Your task to perform on an android device: What's US dollar exchange rate against the Japanese Yen? Image 0: 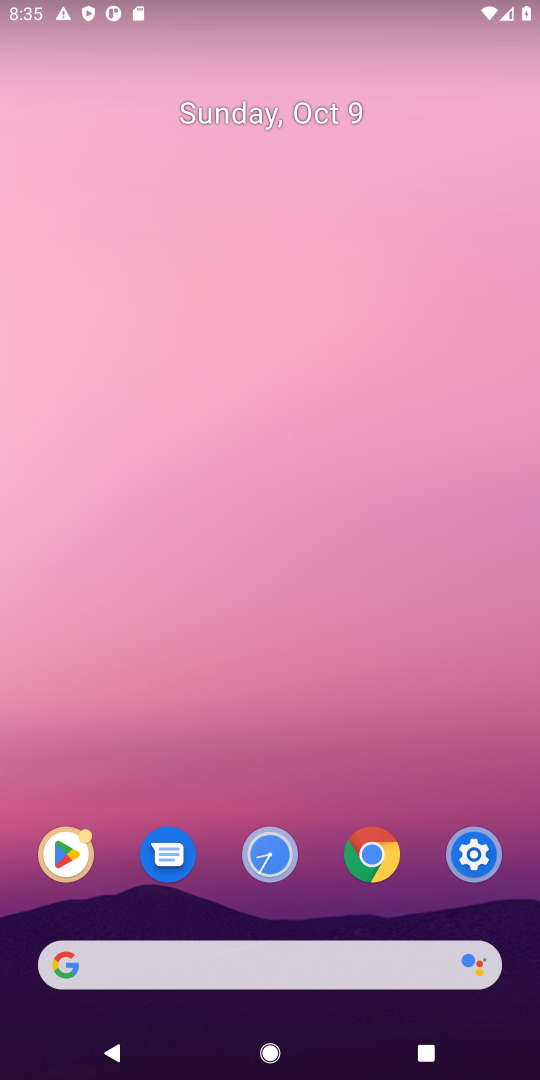
Step 0: drag from (296, 800) to (260, 310)
Your task to perform on an android device: What's US dollar exchange rate against the Japanese Yen? Image 1: 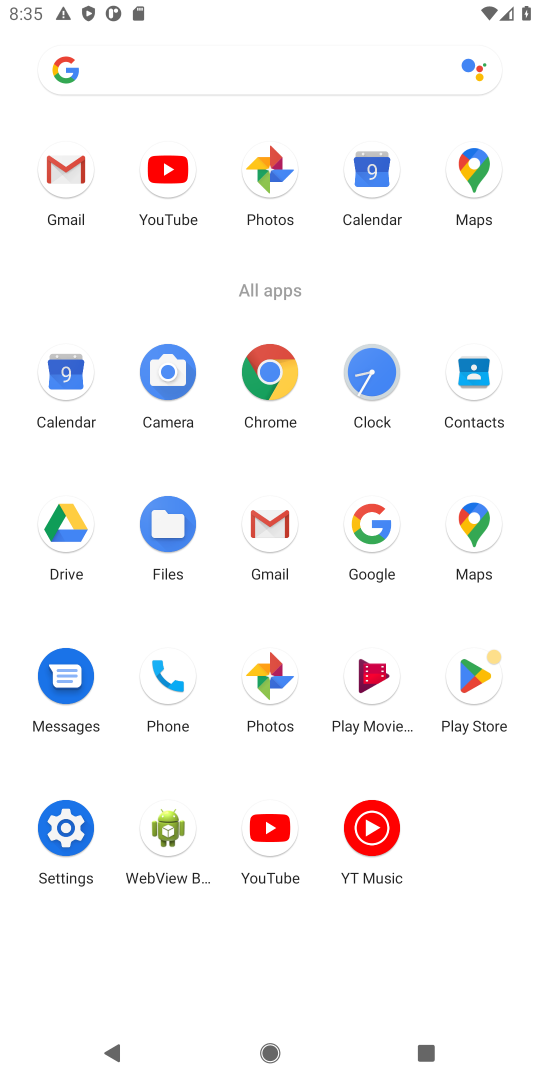
Step 1: click (373, 535)
Your task to perform on an android device: What's US dollar exchange rate against the Japanese Yen? Image 2: 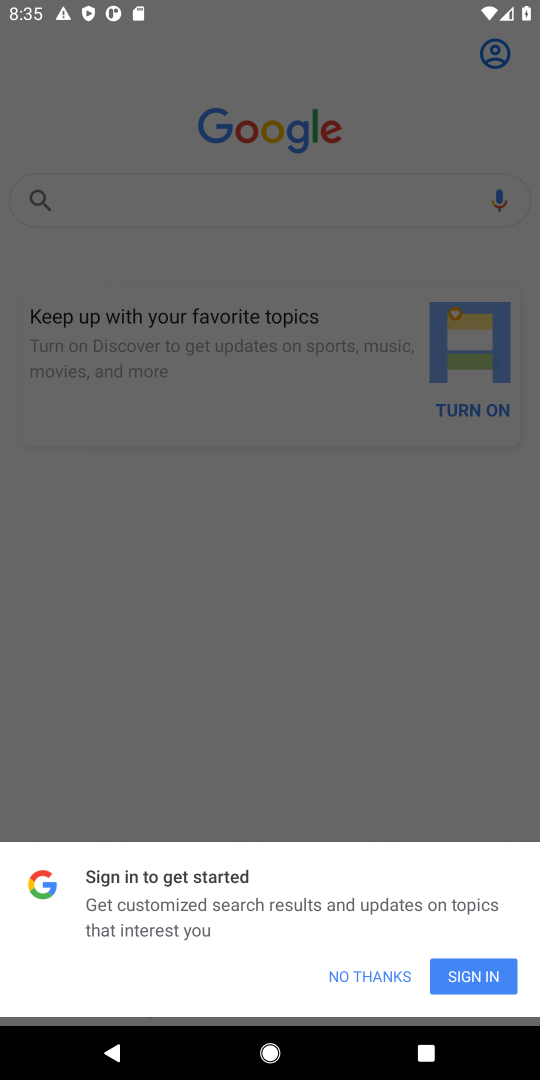
Step 2: click (472, 984)
Your task to perform on an android device: What's US dollar exchange rate against the Japanese Yen? Image 3: 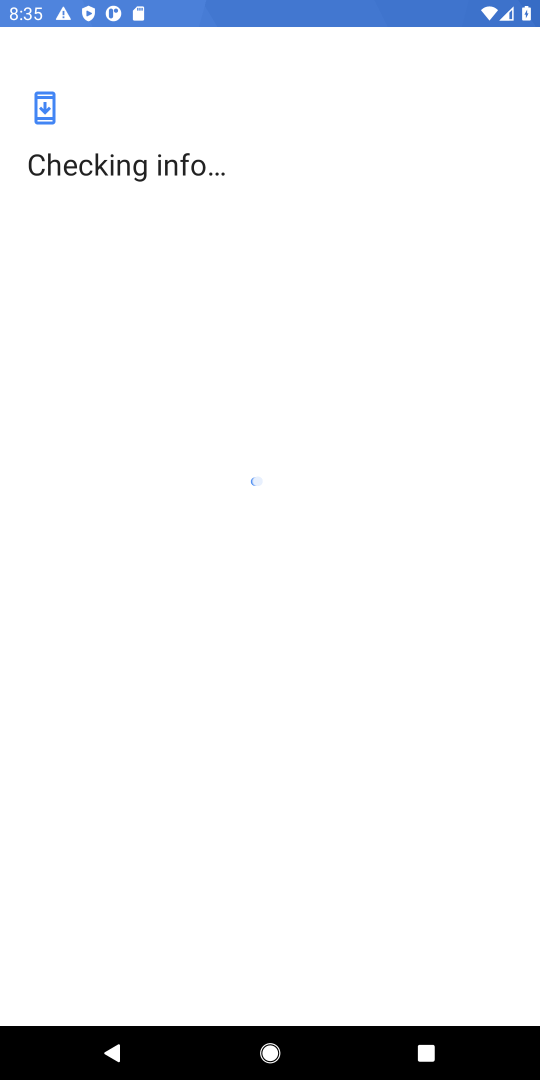
Step 3: press back button
Your task to perform on an android device: What's US dollar exchange rate against the Japanese Yen? Image 4: 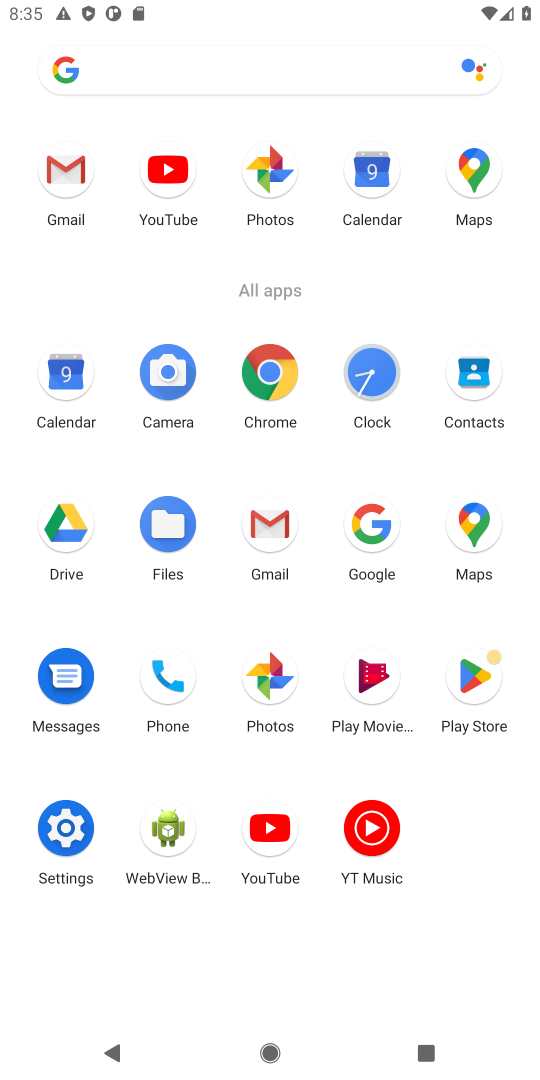
Step 4: click (373, 537)
Your task to perform on an android device: What's US dollar exchange rate against the Japanese Yen? Image 5: 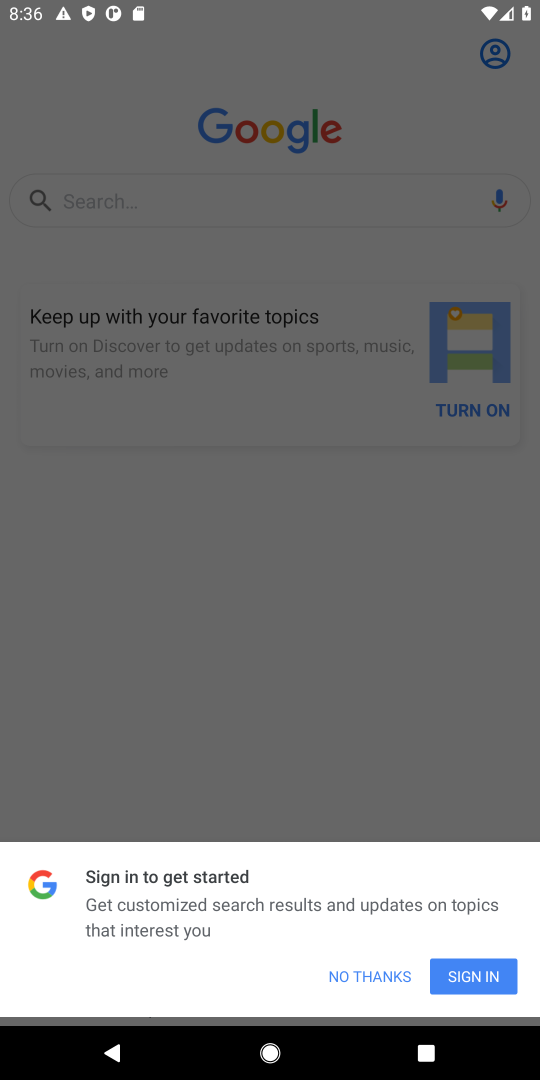
Step 5: click (370, 978)
Your task to perform on an android device: What's US dollar exchange rate against the Japanese Yen? Image 6: 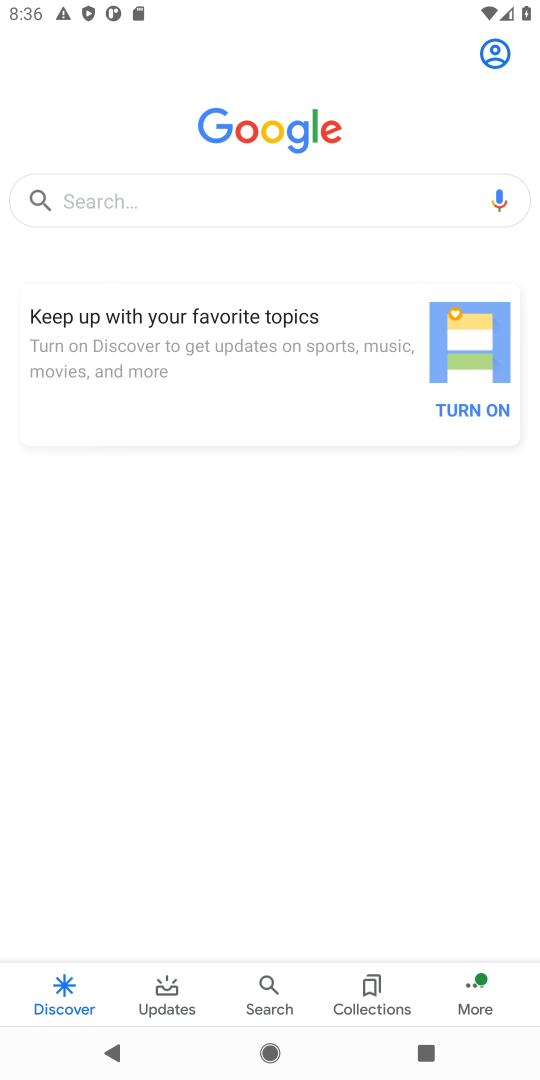
Step 6: click (104, 206)
Your task to perform on an android device: What's US dollar exchange rate against the Japanese Yen? Image 7: 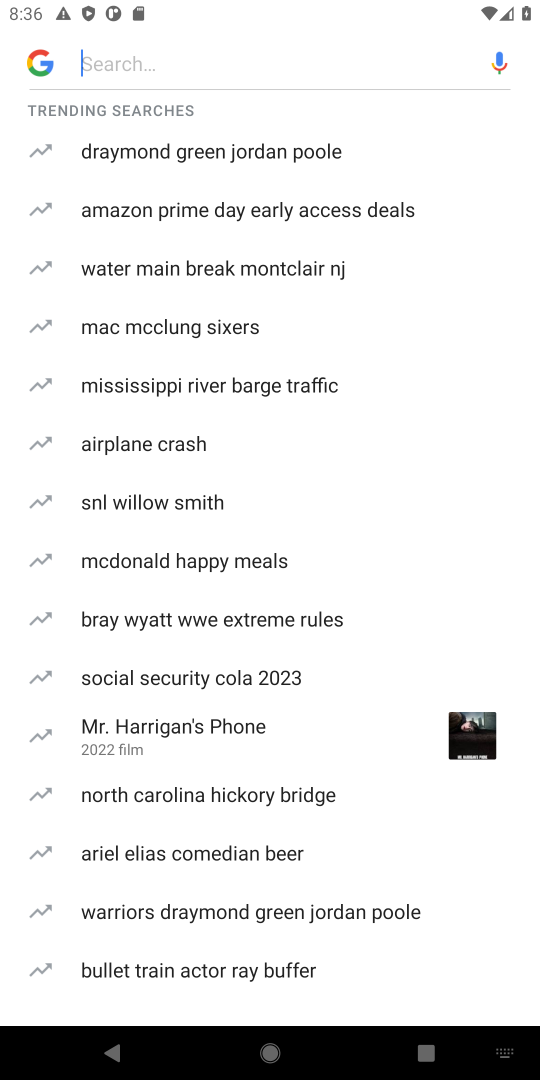
Step 7: type "What's US dollar exchange rate against the Japanese Yen"
Your task to perform on an android device: What's US dollar exchange rate against the Japanese Yen? Image 8: 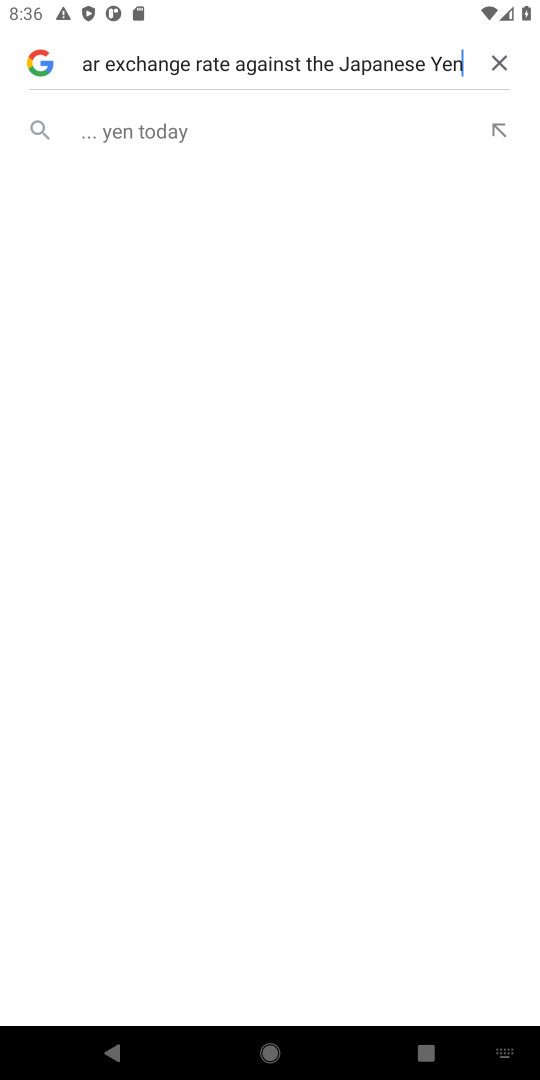
Step 8: click (129, 128)
Your task to perform on an android device: What's US dollar exchange rate against the Japanese Yen? Image 9: 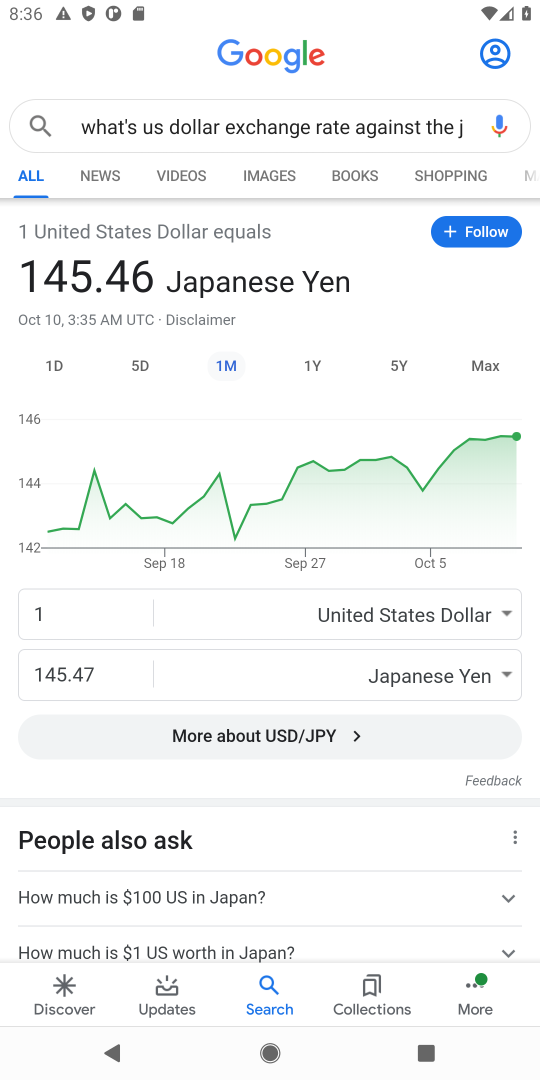
Step 9: task complete